Your task to perform on an android device: Search for Italian restaurants on Maps Image 0: 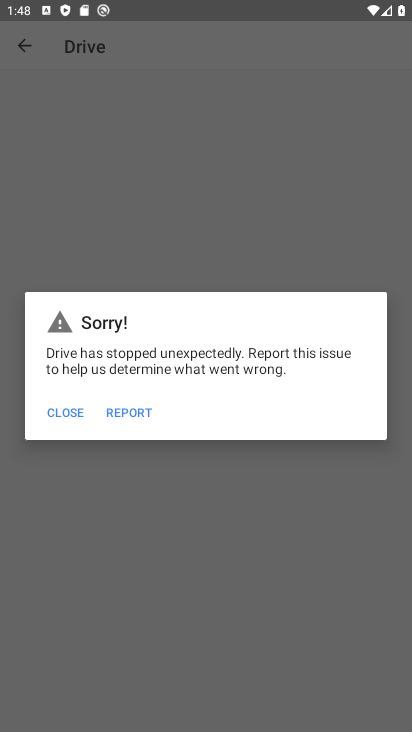
Step 0: press home button
Your task to perform on an android device: Search for Italian restaurants on Maps Image 1: 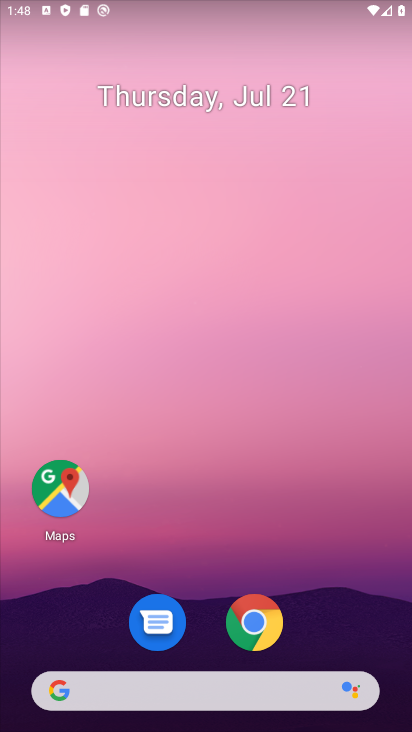
Step 1: click (62, 500)
Your task to perform on an android device: Search for Italian restaurants on Maps Image 2: 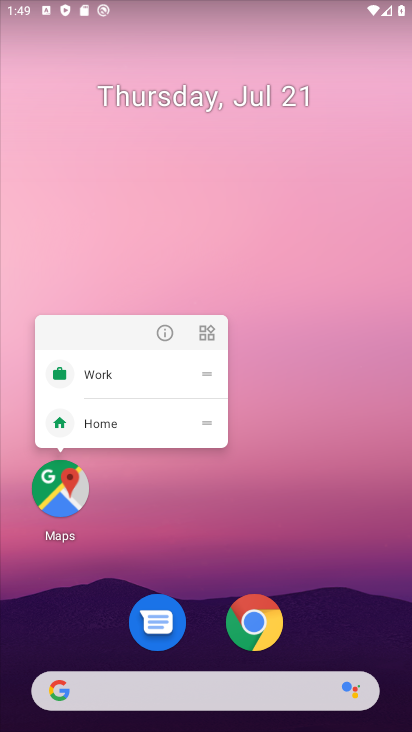
Step 2: click (71, 490)
Your task to perform on an android device: Search for Italian restaurants on Maps Image 3: 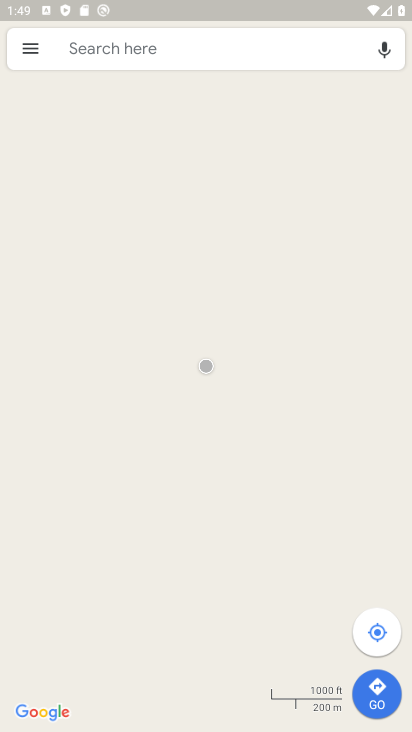
Step 3: click (28, 56)
Your task to perform on an android device: Search for Italian restaurants on Maps Image 4: 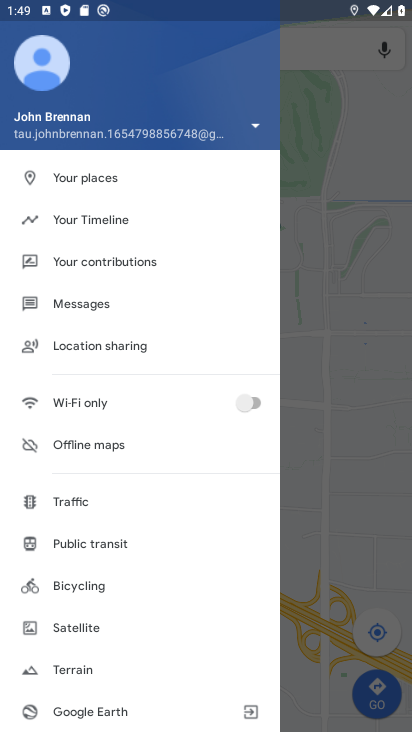
Step 4: drag from (144, 641) to (153, 487)
Your task to perform on an android device: Search for Italian restaurants on Maps Image 5: 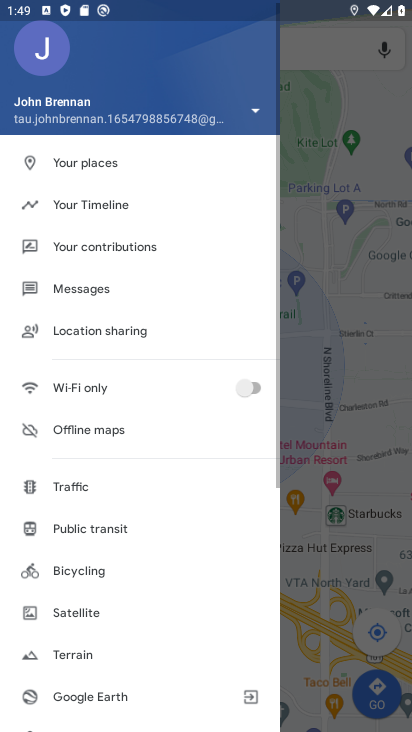
Step 5: click (366, 351)
Your task to perform on an android device: Search for Italian restaurants on Maps Image 6: 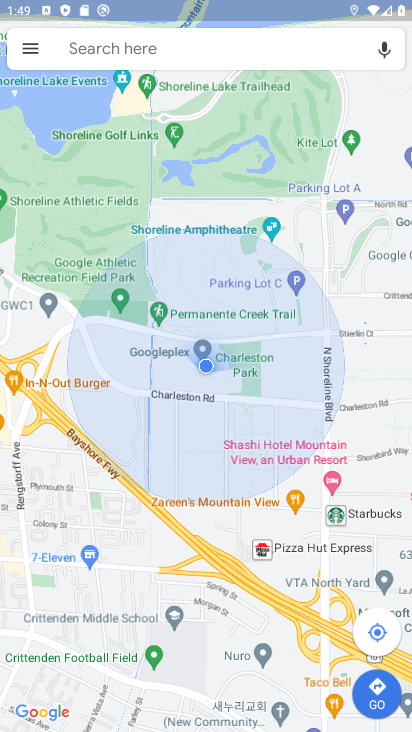
Step 6: click (212, 47)
Your task to perform on an android device: Search for Italian restaurants on Maps Image 7: 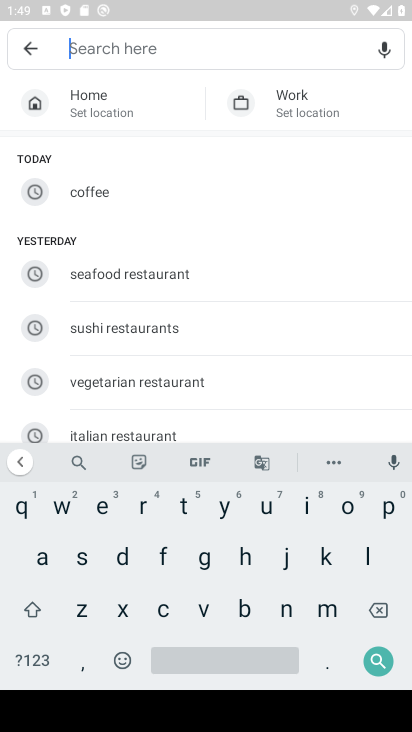
Step 7: click (110, 427)
Your task to perform on an android device: Search for Italian restaurants on Maps Image 8: 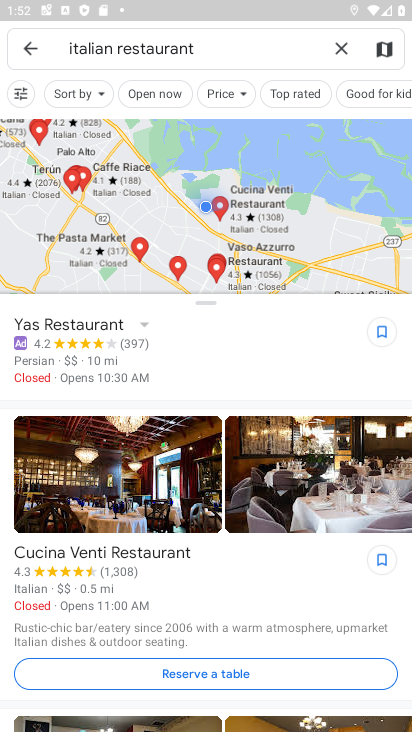
Step 8: task complete